Your task to perform on an android device: Open Google Chrome and open the bookmarks view Image 0: 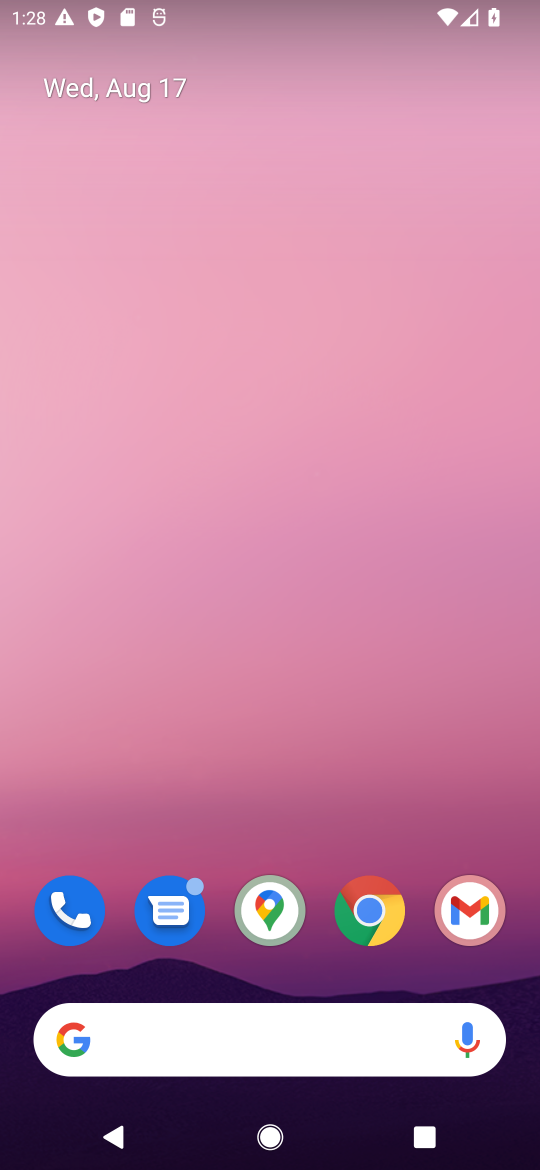
Step 0: click (372, 920)
Your task to perform on an android device: Open Google Chrome and open the bookmarks view Image 1: 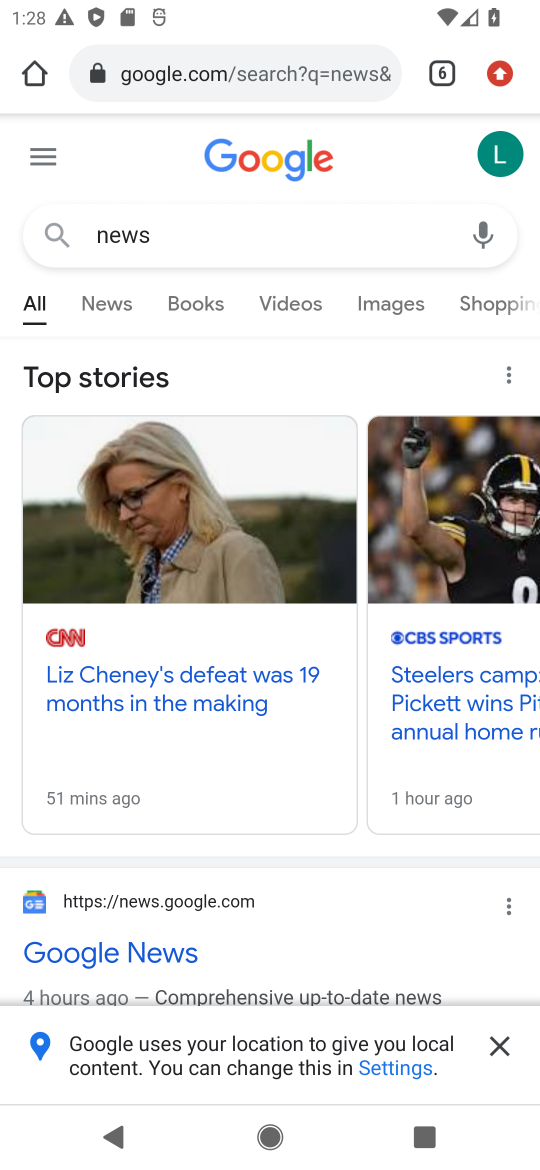
Step 1: task complete